Your task to perform on an android device: see tabs open on other devices in the chrome app Image 0: 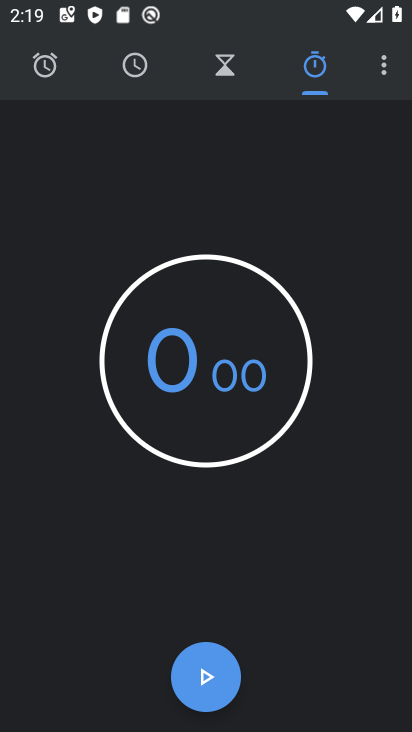
Step 0: press home button
Your task to perform on an android device: see tabs open on other devices in the chrome app Image 1: 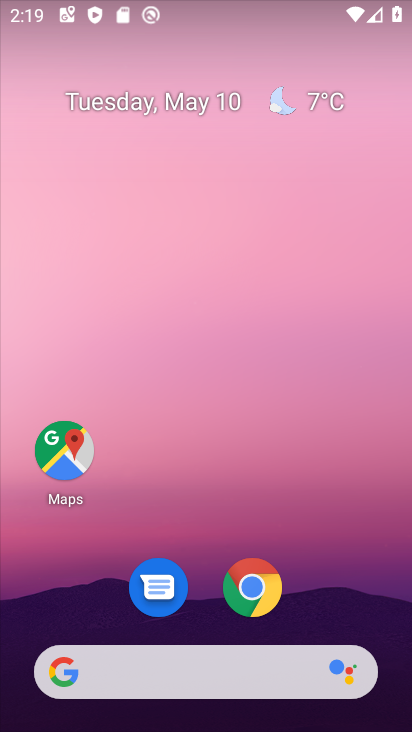
Step 1: click (250, 602)
Your task to perform on an android device: see tabs open on other devices in the chrome app Image 2: 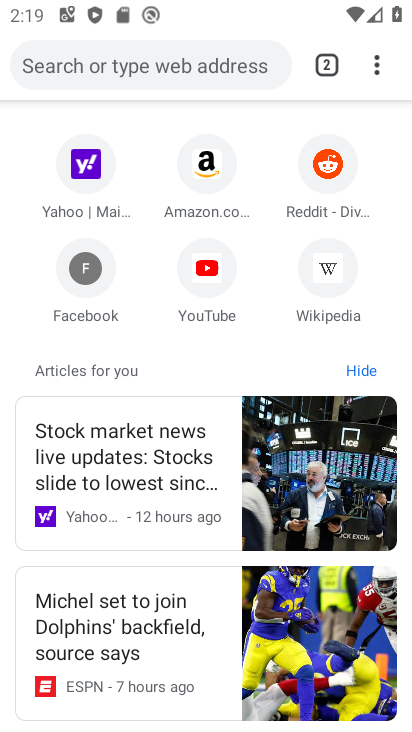
Step 2: click (375, 67)
Your task to perform on an android device: see tabs open on other devices in the chrome app Image 3: 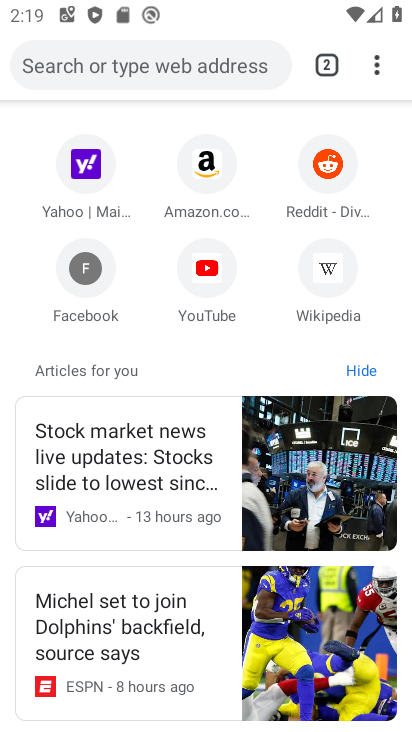
Step 3: click (378, 80)
Your task to perform on an android device: see tabs open on other devices in the chrome app Image 4: 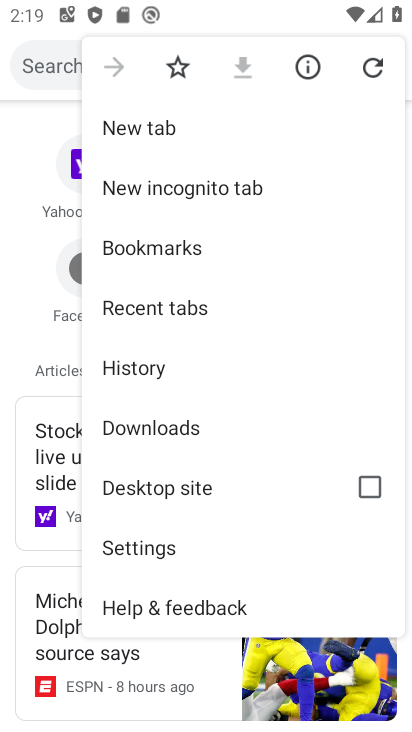
Step 4: click (194, 312)
Your task to perform on an android device: see tabs open on other devices in the chrome app Image 5: 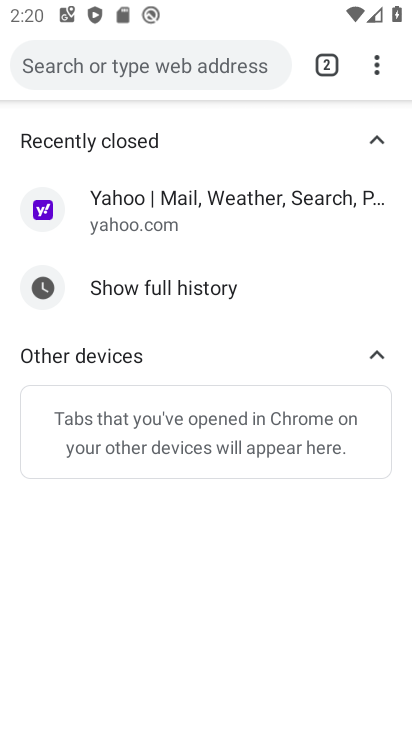
Step 5: task complete